Your task to perform on an android device: Open the calendar app, open the side menu, and click the "Day" option Image 0: 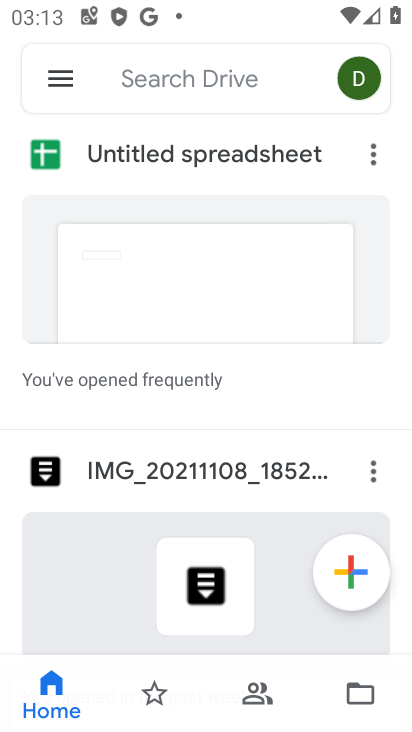
Step 0: press home button
Your task to perform on an android device: Open the calendar app, open the side menu, and click the "Day" option Image 1: 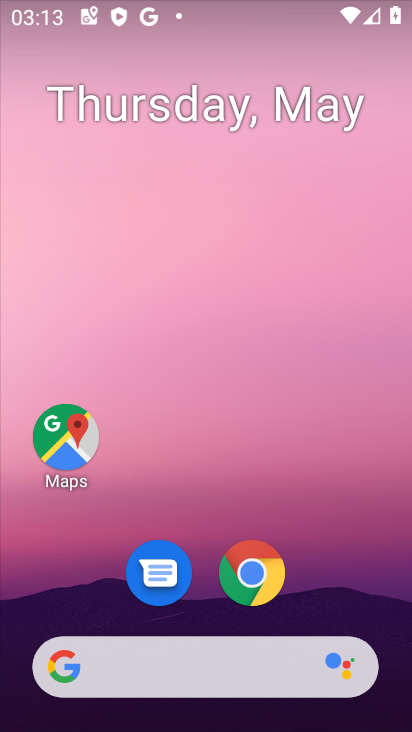
Step 1: drag from (219, 439) to (221, 195)
Your task to perform on an android device: Open the calendar app, open the side menu, and click the "Day" option Image 2: 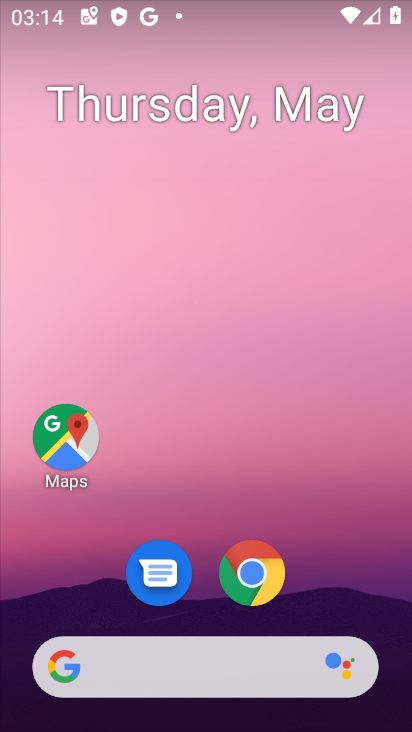
Step 2: drag from (260, 528) to (260, 222)
Your task to perform on an android device: Open the calendar app, open the side menu, and click the "Day" option Image 3: 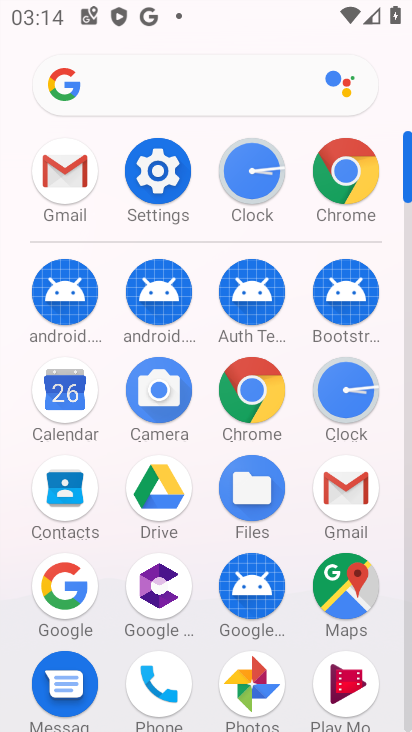
Step 3: click (72, 391)
Your task to perform on an android device: Open the calendar app, open the side menu, and click the "Day" option Image 4: 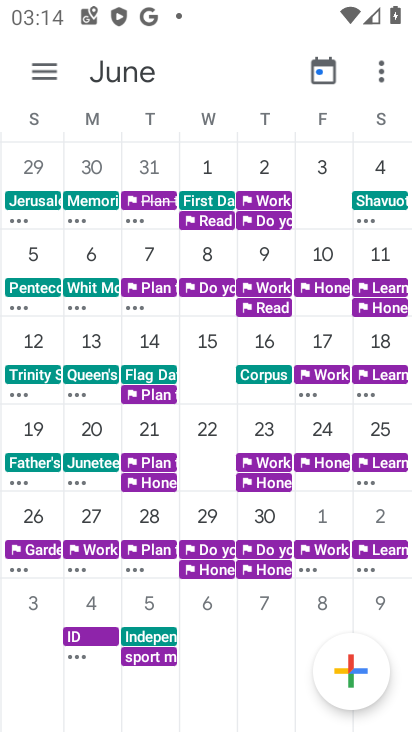
Step 4: click (46, 64)
Your task to perform on an android device: Open the calendar app, open the side menu, and click the "Day" option Image 5: 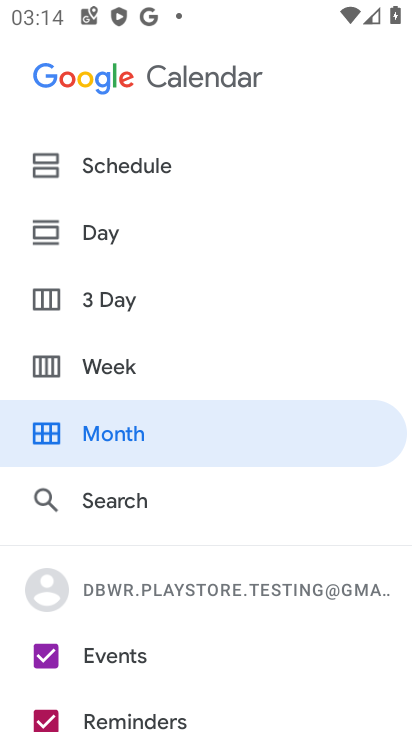
Step 5: click (134, 222)
Your task to perform on an android device: Open the calendar app, open the side menu, and click the "Day" option Image 6: 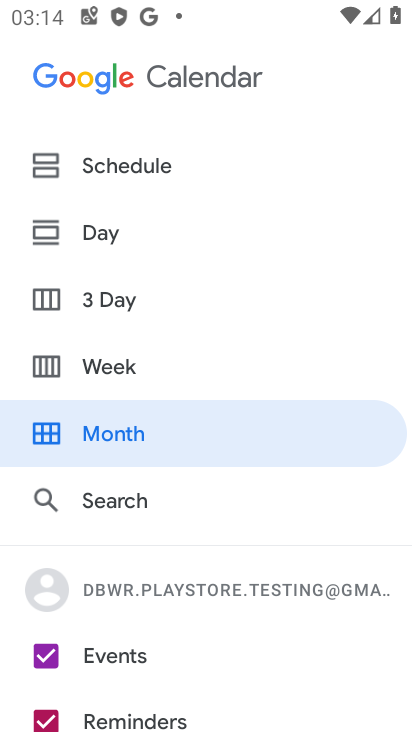
Step 6: click (124, 234)
Your task to perform on an android device: Open the calendar app, open the side menu, and click the "Day" option Image 7: 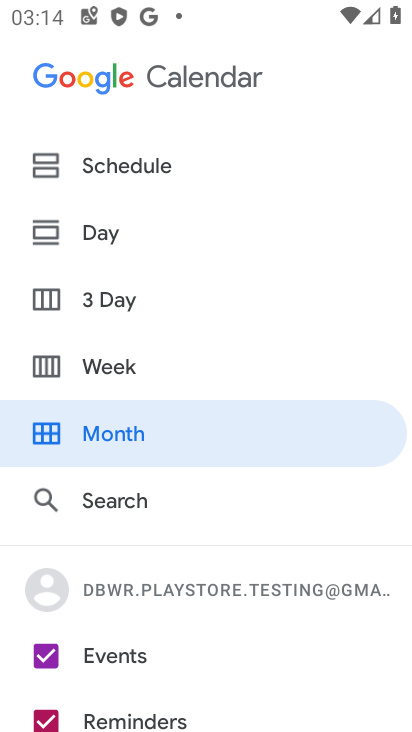
Step 7: click (100, 227)
Your task to perform on an android device: Open the calendar app, open the side menu, and click the "Day" option Image 8: 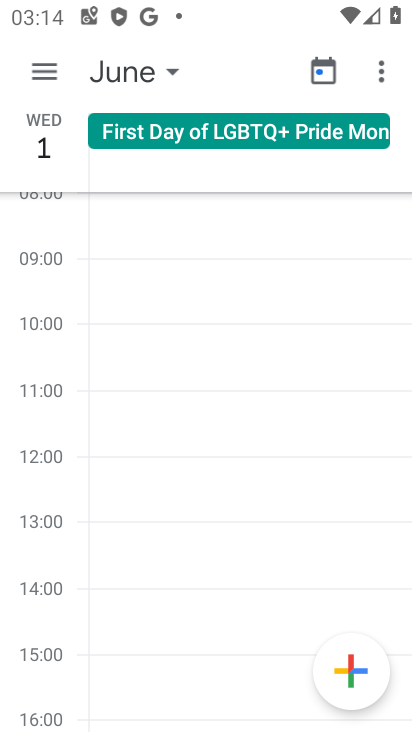
Step 8: task complete